Your task to perform on an android device: Open Google Chrome and open the bookmarks view Image 0: 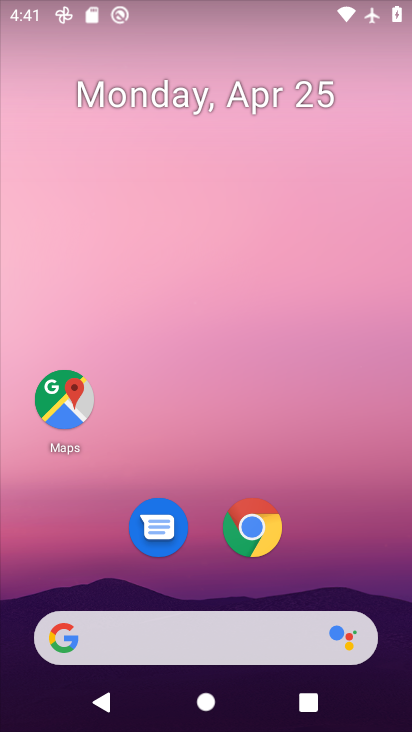
Step 0: click (251, 528)
Your task to perform on an android device: Open Google Chrome and open the bookmarks view Image 1: 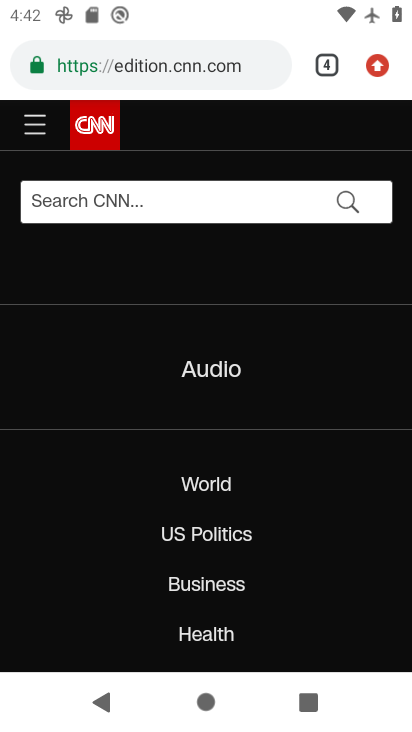
Step 1: click (376, 65)
Your task to perform on an android device: Open Google Chrome and open the bookmarks view Image 2: 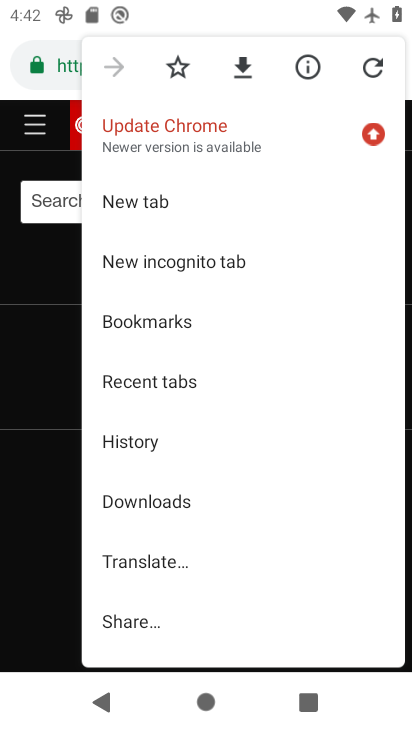
Step 2: click (150, 312)
Your task to perform on an android device: Open Google Chrome and open the bookmarks view Image 3: 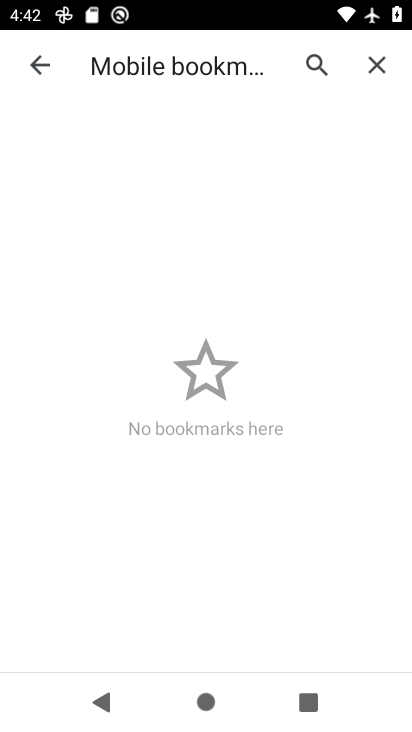
Step 3: task complete